Your task to perform on an android device: turn pop-ups on in chrome Image 0: 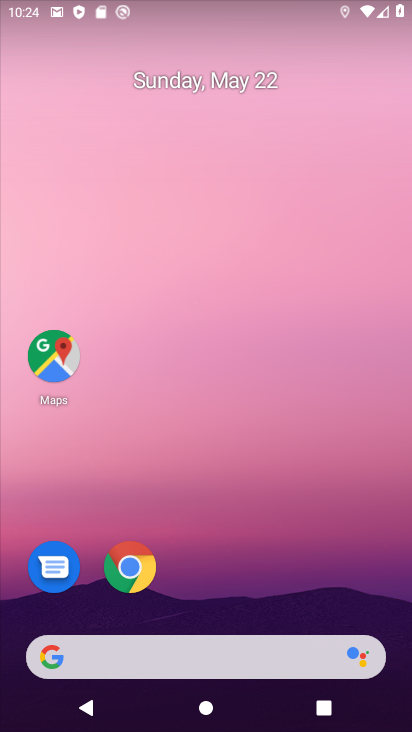
Step 0: drag from (347, 562) to (317, 145)
Your task to perform on an android device: turn pop-ups on in chrome Image 1: 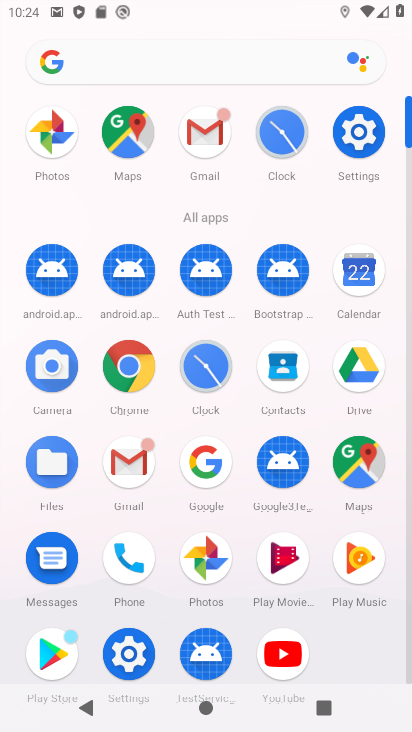
Step 1: click (149, 365)
Your task to perform on an android device: turn pop-ups on in chrome Image 2: 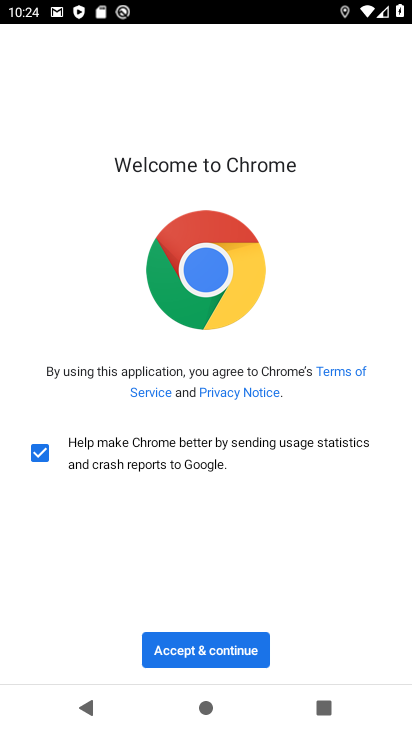
Step 2: click (227, 648)
Your task to perform on an android device: turn pop-ups on in chrome Image 3: 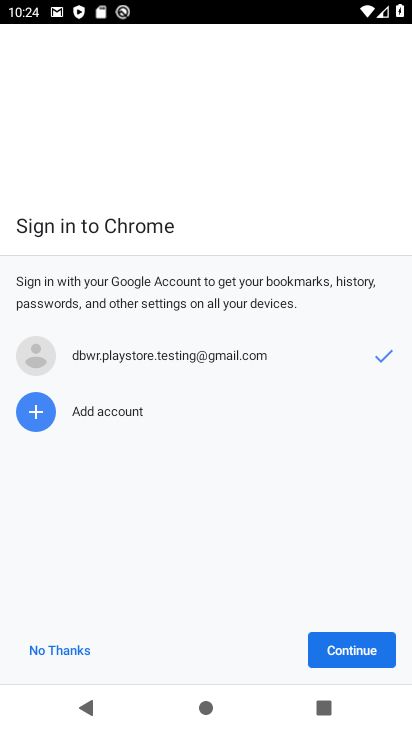
Step 3: click (331, 658)
Your task to perform on an android device: turn pop-ups on in chrome Image 4: 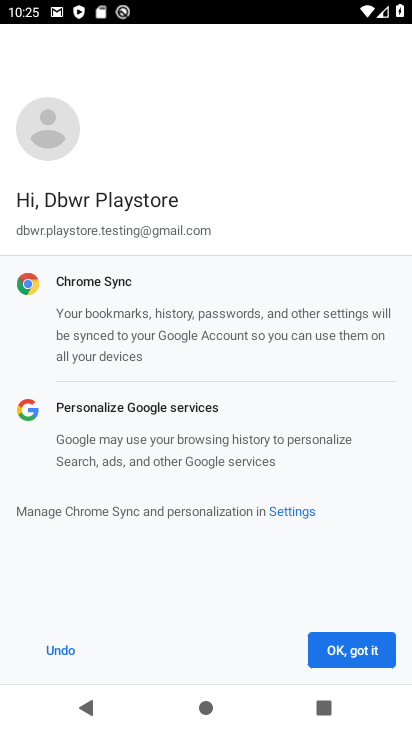
Step 4: click (356, 640)
Your task to perform on an android device: turn pop-ups on in chrome Image 5: 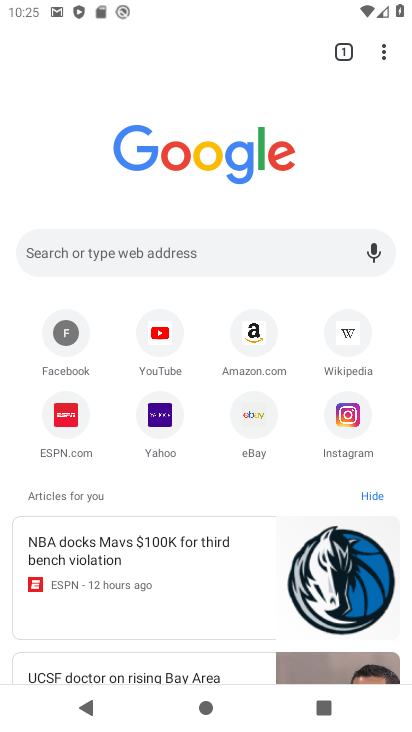
Step 5: drag from (392, 53) to (213, 438)
Your task to perform on an android device: turn pop-ups on in chrome Image 6: 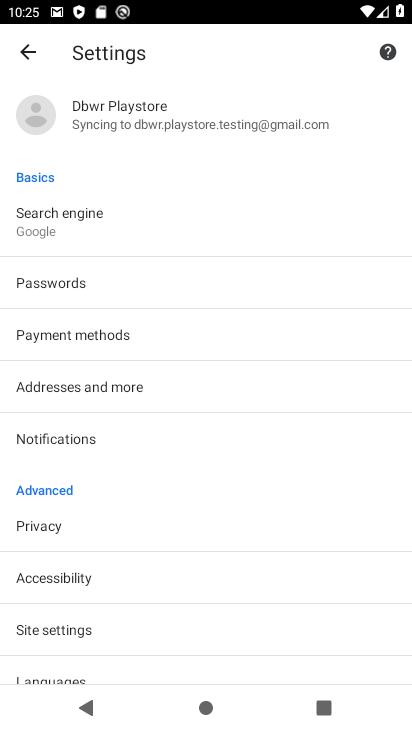
Step 6: drag from (207, 589) to (260, 212)
Your task to perform on an android device: turn pop-ups on in chrome Image 7: 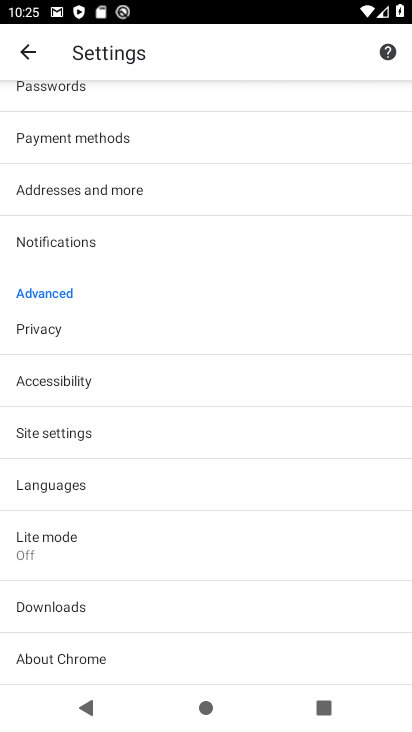
Step 7: click (141, 436)
Your task to perform on an android device: turn pop-ups on in chrome Image 8: 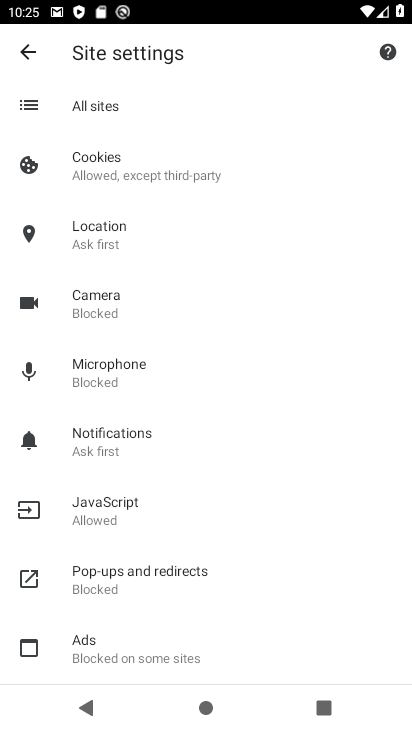
Step 8: drag from (270, 482) to (249, 239)
Your task to perform on an android device: turn pop-ups on in chrome Image 9: 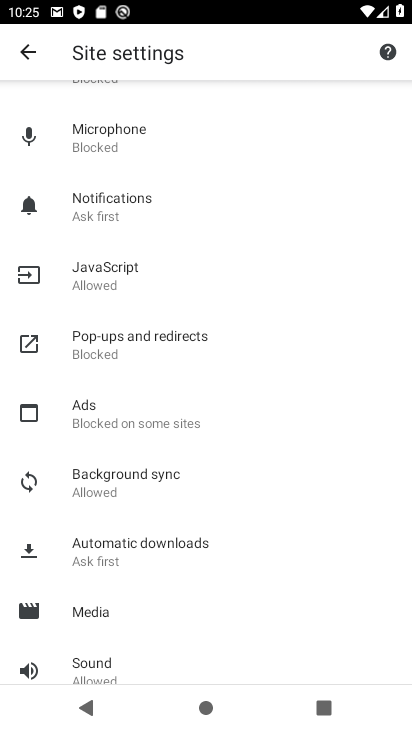
Step 9: click (174, 338)
Your task to perform on an android device: turn pop-ups on in chrome Image 10: 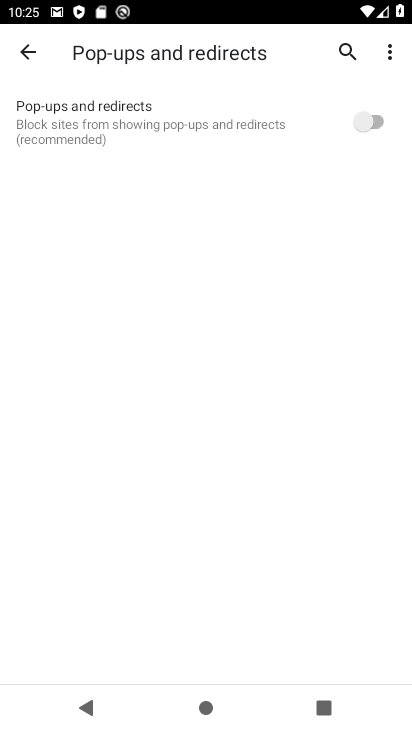
Step 10: click (377, 123)
Your task to perform on an android device: turn pop-ups on in chrome Image 11: 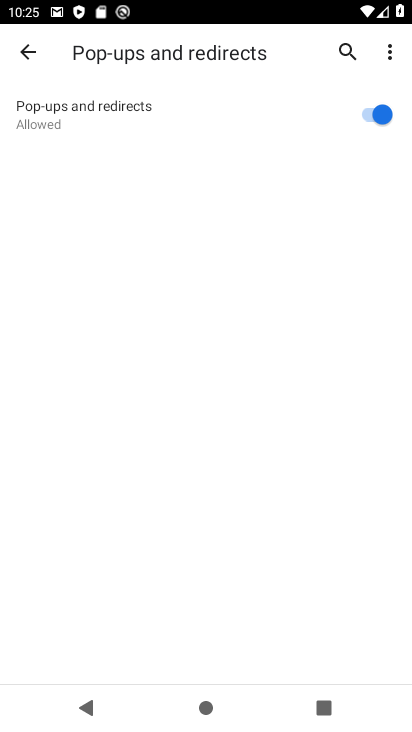
Step 11: task complete